Your task to perform on an android device: open the mobile data screen to see how much data has been used Image 0: 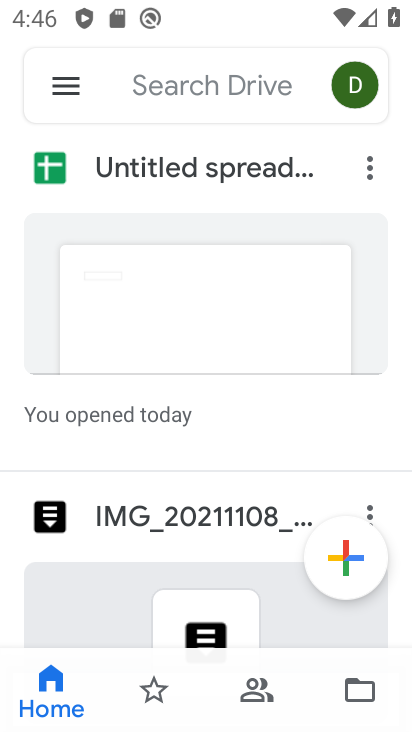
Step 0: press back button
Your task to perform on an android device: open the mobile data screen to see how much data has been used Image 1: 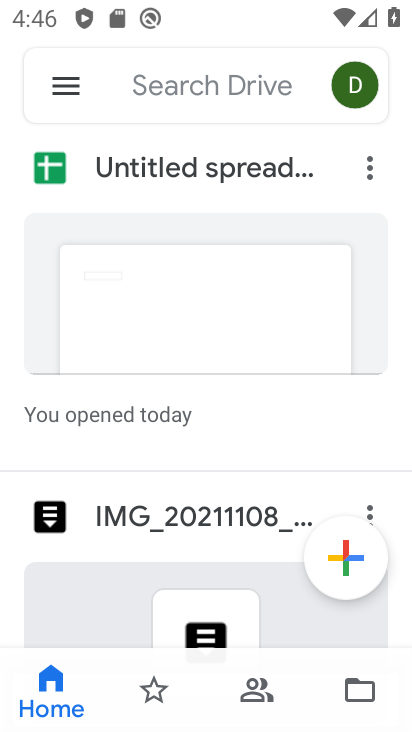
Step 1: press back button
Your task to perform on an android device: open the mobile data screen to see how much data has been used Image 2: 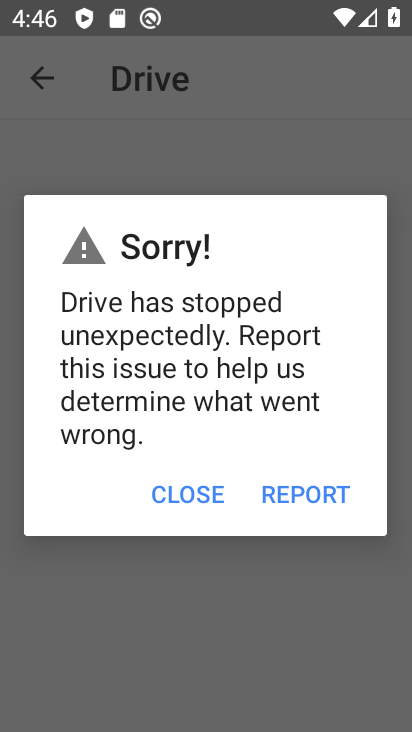
Step 2: click (182, 475)
Your task to perform on an android device: open the mobile data screen to see how much data has been used Image 3: 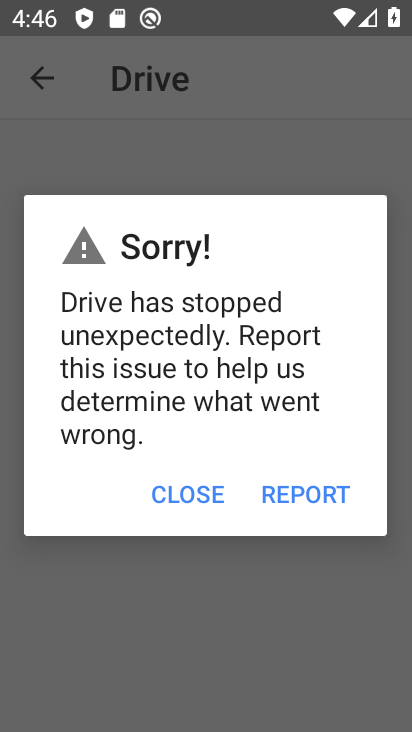
Step 3: click (181, 483)
Your task to perform on an android device: open the mobile data screen to see how much data has been used Image 4: 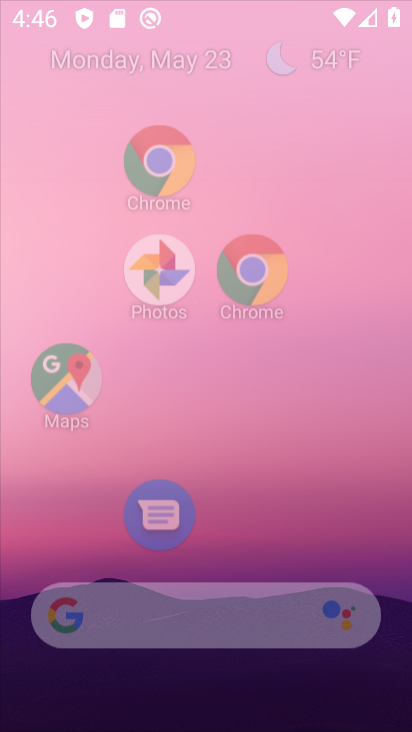
Step 4: click (175, 500)
Your task to perform on an android device: open the mobile data screen to see how much data has been used Image 5: 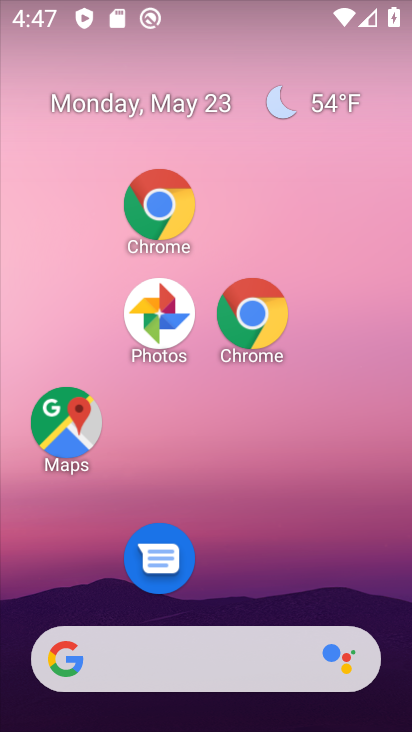
Step 5: drag from (284, 665) to (152, 146)
Your task to perform on an android device: open the mobile data screen to see how much data has been used Image 6: 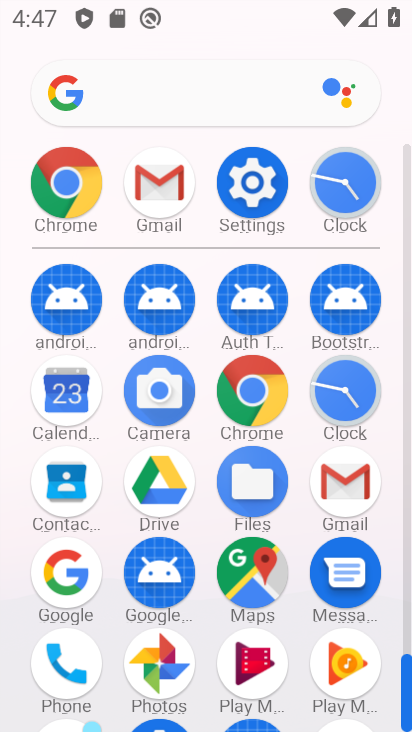
Step 6: click (246, 185)
Your task to perform on an android device: open the mobile data screen to see how much data has been used Image 7: 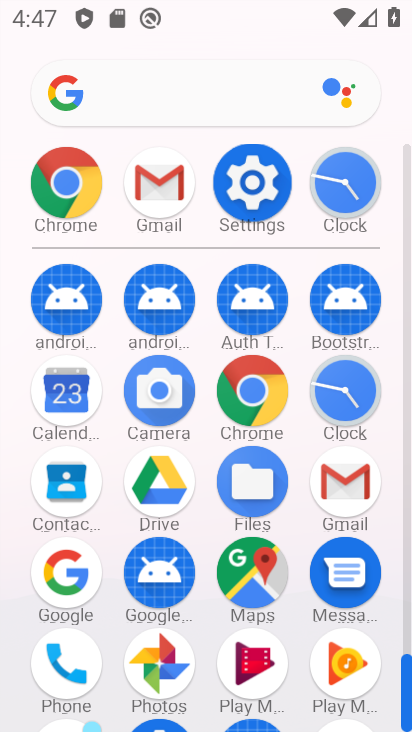
Step 7: click (247, 185)
Your task to perform on an android device: open the mobile data screen to see how much data has been used Image 8: 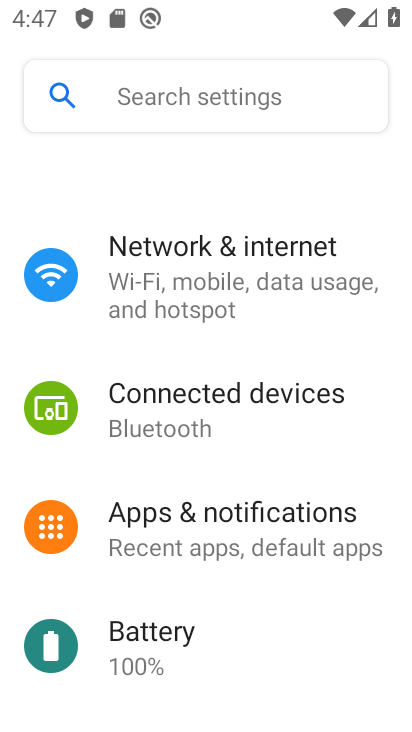
Step 8: click (249, 188)
Your task to perform on an android device: open the mobile data screen to see how much data has been used Image 9: 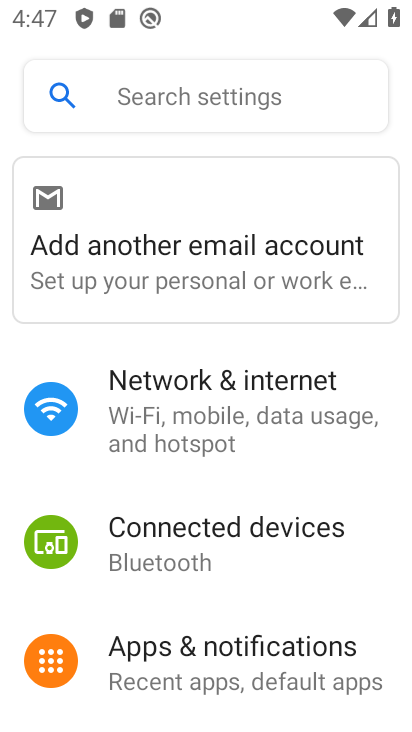
Step 9: click (179, 436)
Your task to perform on an android device: open the mobile data screen to see how much data has been used Image 10: 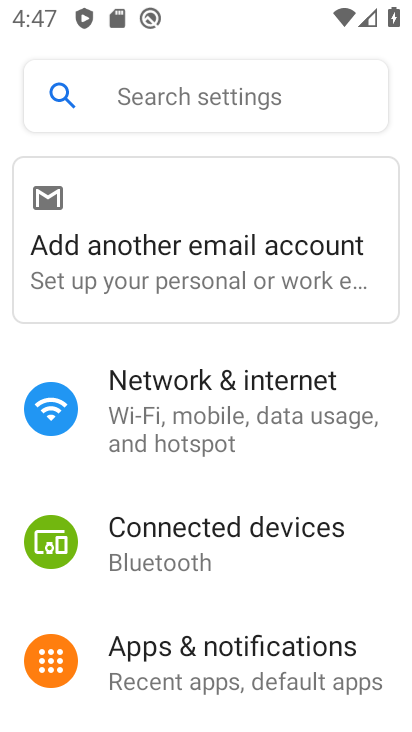
Step 10: click (190, 417)
Your task to perform on an android device: open the mobile data screen to see how much data has been used Image 11: 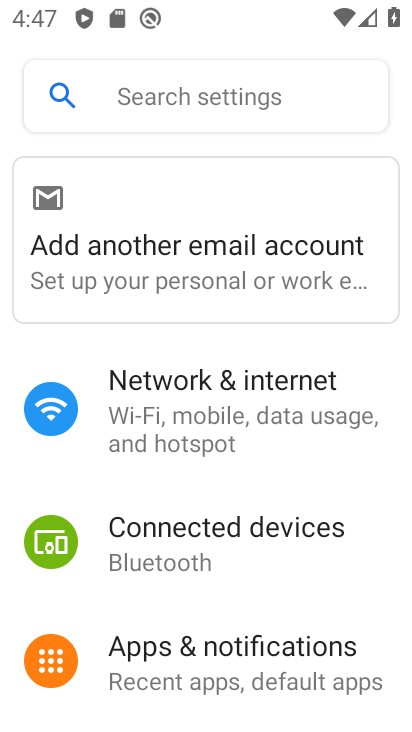
Step 11: click (190, 417)
Your task to perform on an android device: open the mobile data screen to see how much data has been used Image 12: 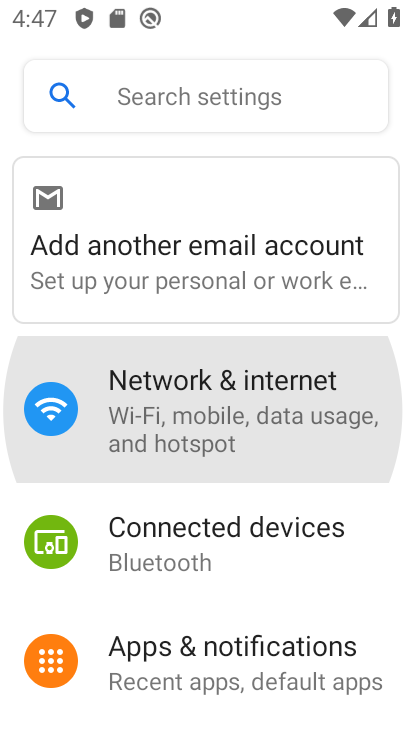
Step 12: click (192, 415)
Your task to perform on an android device: open the mobile data screen to see how much data has been used Image 13: 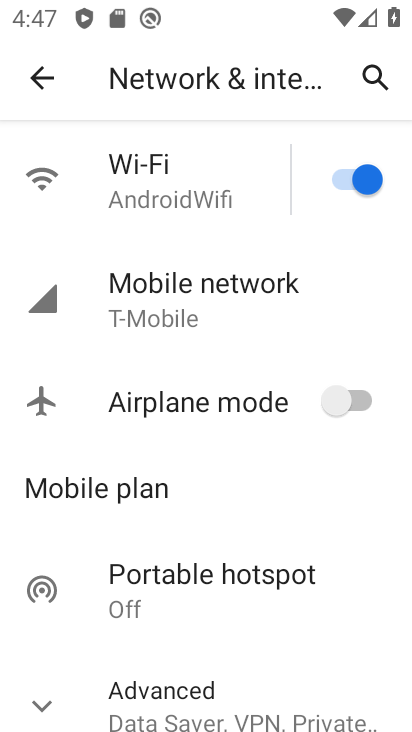
Step 13: task complete